Your task to perform on an android device: Show me popular videos on Youtube Image 0: 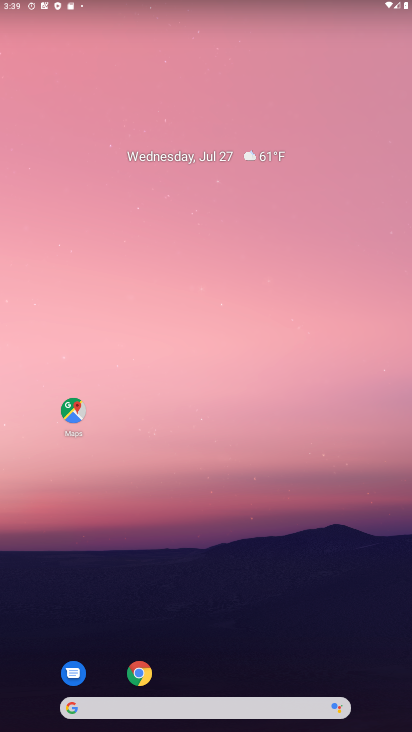
Step 0: drag from (68, 647) to (256, 145)
Your task to perform on an android device: Show me popular videos on Youtube Image 1: 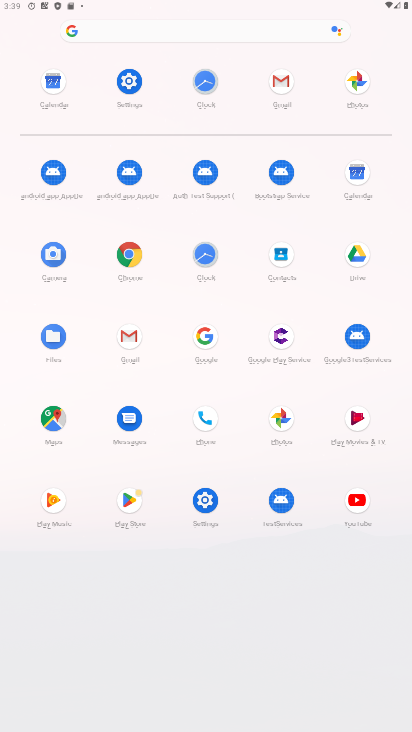
Step 1: click (356, 496)
Your task to perform on an android device: Show me popular videos on Youtube Image 2: 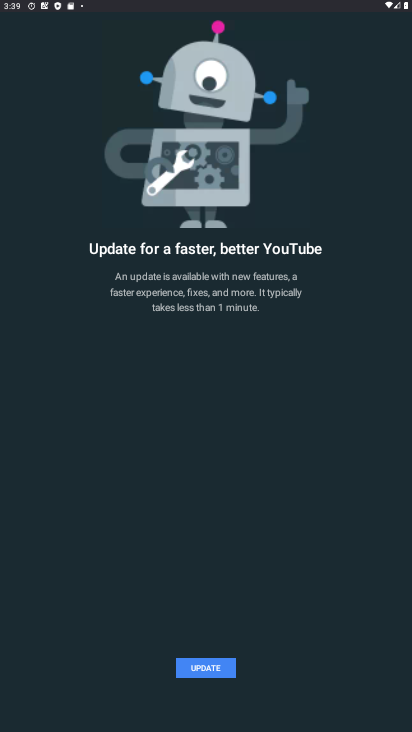
Step 2: click (194, 660)
Your task to perform on an android device: Show me popular videos on Youtube Image 3: 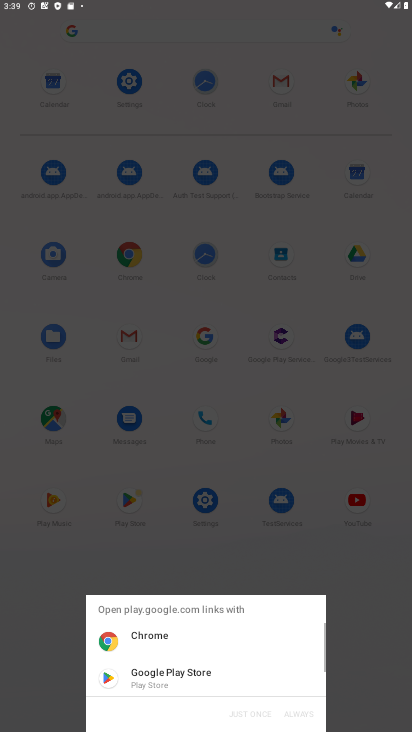
Step 3: click (165, 666)
Your task to perform on an android device: Show me popular videos on Youtube Image 4: 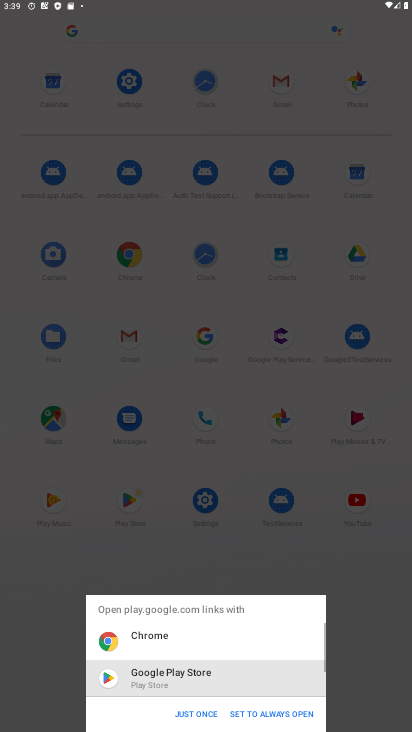
Step 4: click (195, 714)
Your task to perform on an android device: Show me popular videos on Youtube Image 5: 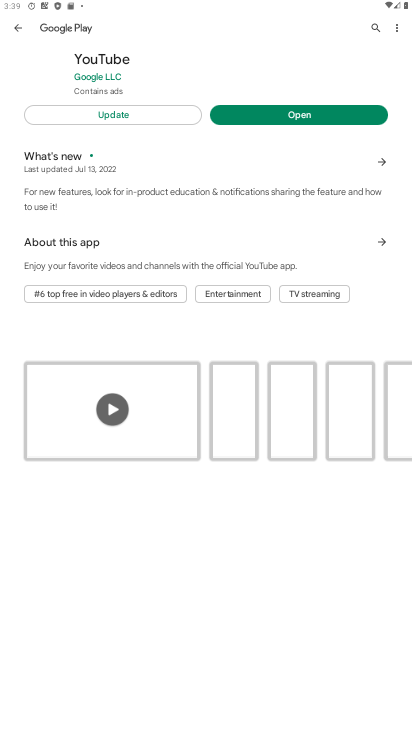
Step 5: task complete